Your task to perform on an android device: Show me productivity apps on the Play Store Image 0: 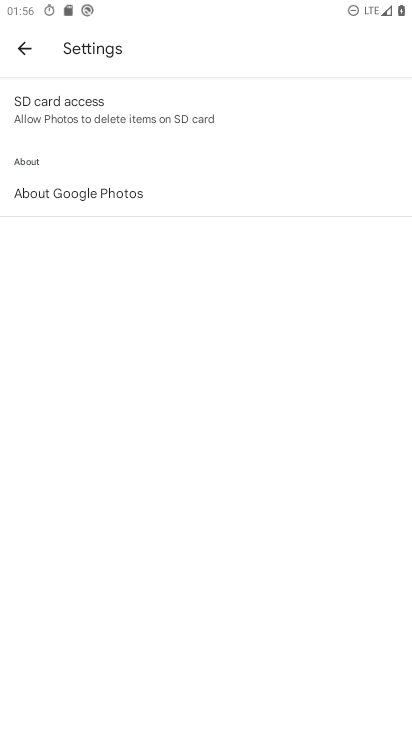
Step 0: press home button
Your task to perform on an android device: Show me productivity apps on the Play Store Image 1: 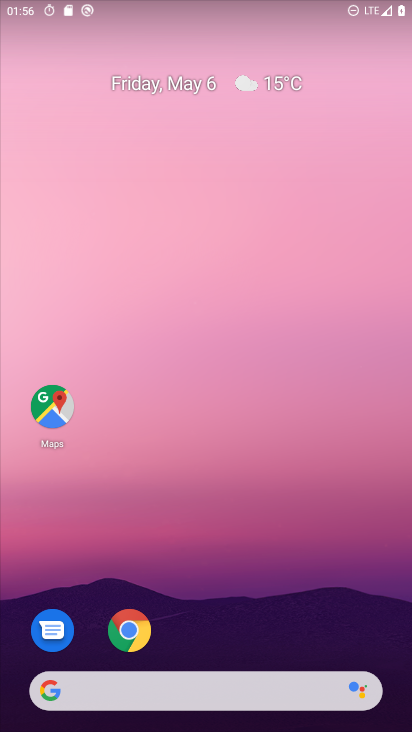
Step 1: drag from (366, 590) to (317, 131)
Your task to perform on an android device: Show me productivity apps on the Play Store Image 2: 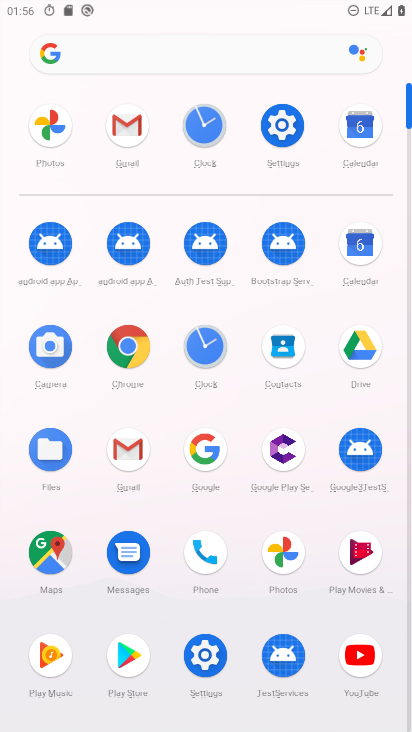
Step 2: click (123, 649)
Your task to perform on an android device: Show me productivity apps on the Play Store Image 3: 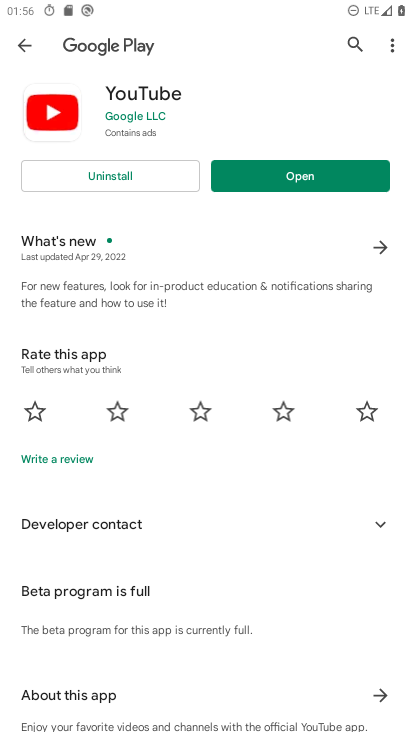
Step 3: click (25, 46)
Your task to perform on an android device: Show me productivity apps on the Play Store Image 4: 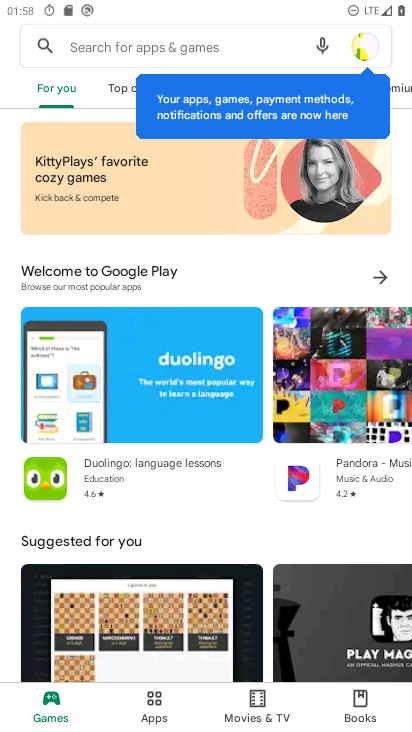
Step 4: click (372, 46)
Your task to perform on an android device: Show me productivity apps on the Play Store Image 5: 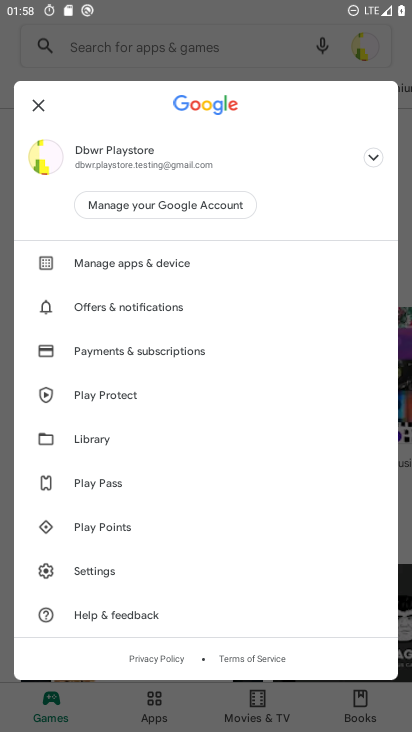
Step 5: click (371, 46)
Your task to perform on an android device: Show me productivity apps on the Play Store Image 6: 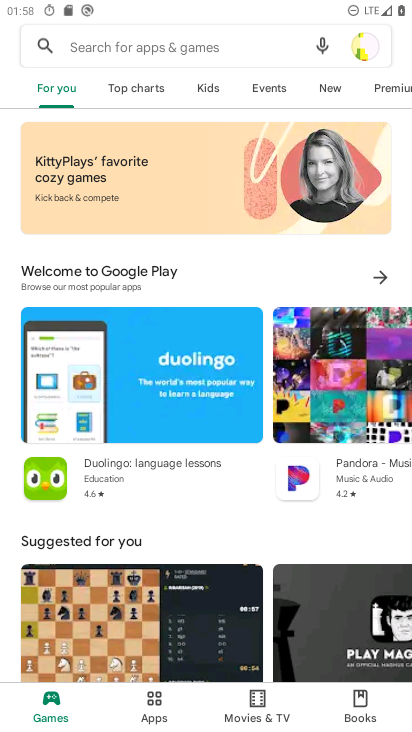
Step 6: drag from (358, 87) to (389, 117)
Your task to perform on an android device: Show me productivity apps on the Play Store Image 7: 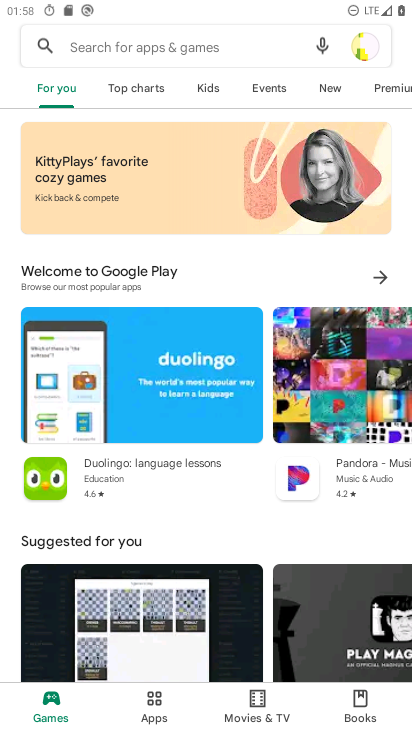
Step 7: drag from (215, 403) to (319, 93)
Your task to perform on an android device: Show me productivity apps on the Play Store Image 8: 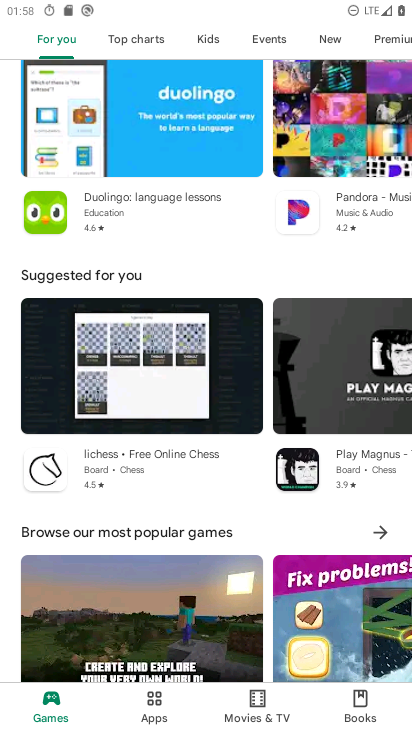
Step 8: drag from (276, 423) to (327, 123)
Your task to perform on an android device: Show me productivity apps on the Play Store Image 9: 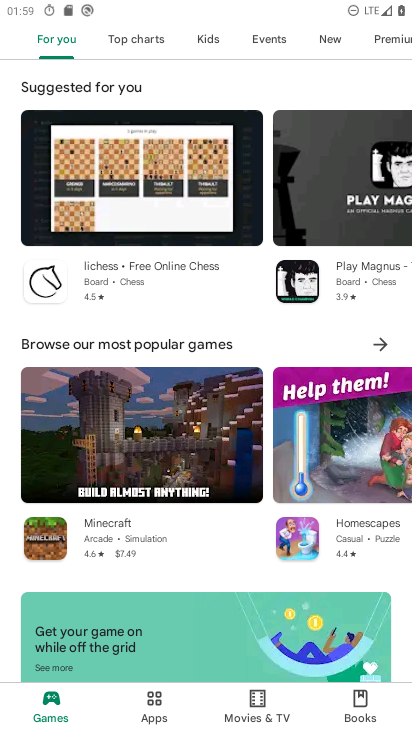
Step 9: click (153, 706)
Your task to perform on an android device: Show me productivity apps on the Play Store Image 10: 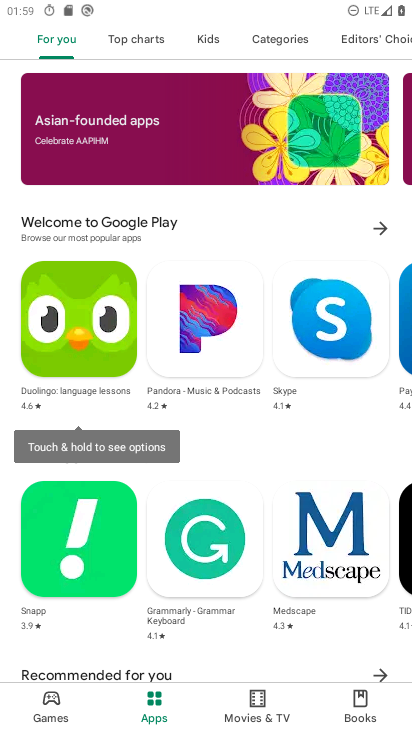
Step 10: task complete